Your task to perform on an android device: toggle wifi Image 0: 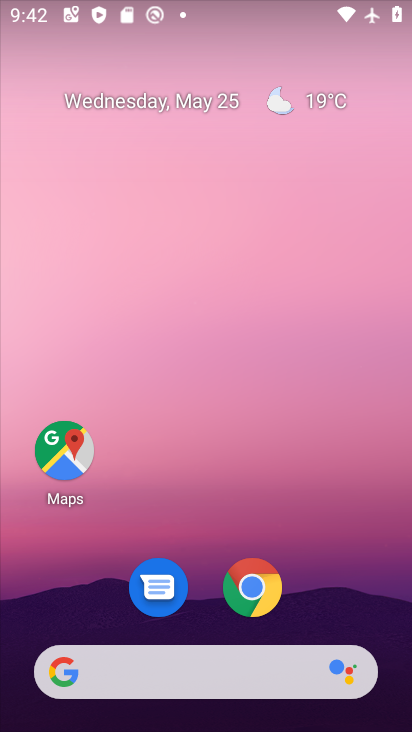
Step 0: drag from (383, 634) to (217, 25)
Your task to perform on an android device: toggle wifi Image 1: 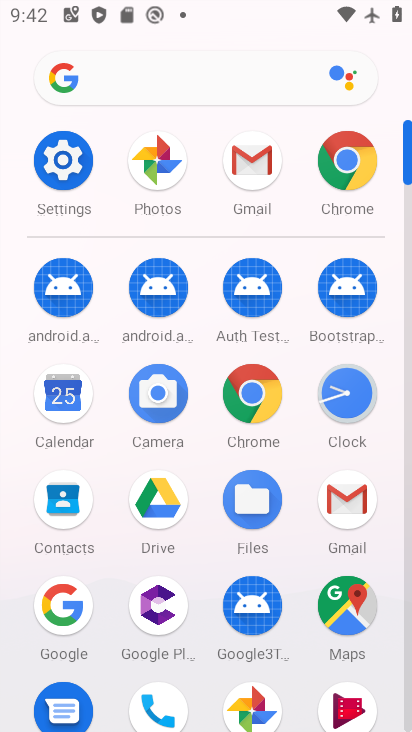
Step 1: click (407, 692)
Your task to perform on an android device: toggle wifi Image 2: 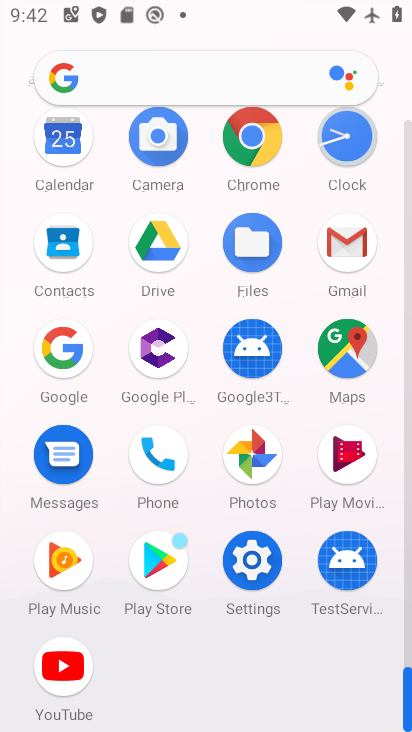
Step 2: click (250, 558)
Your task to perform on an android device: toggle wifi Image 3: 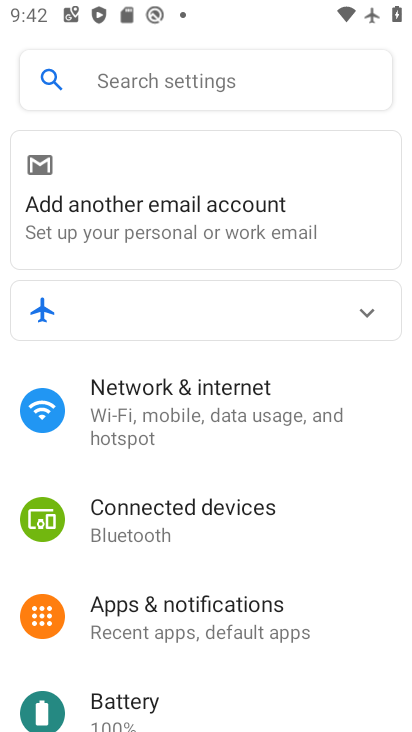
Step 3: click (173, 411)
Your task to perform on an android device: toggle wifi Image 4: 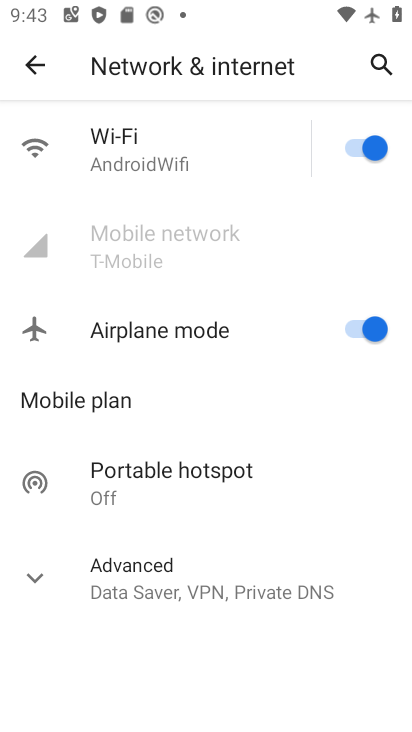
Step 4: click (346, 145)
Your task to perform on an android device: toggle wifi Image 5: 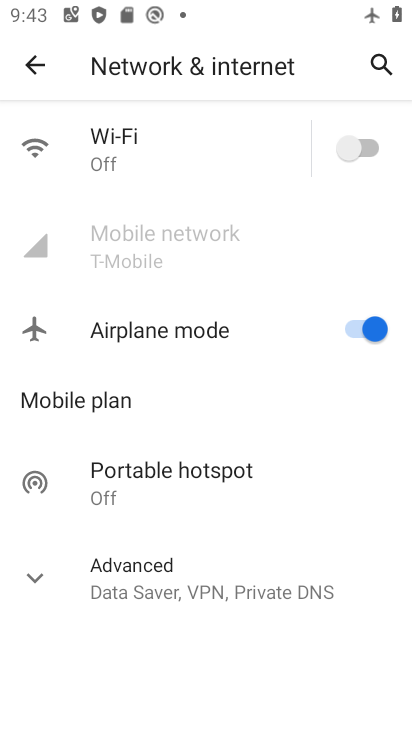
Step 5: task complete